Your task to perform on an android device: change notification settings in the gmail app Image 0: 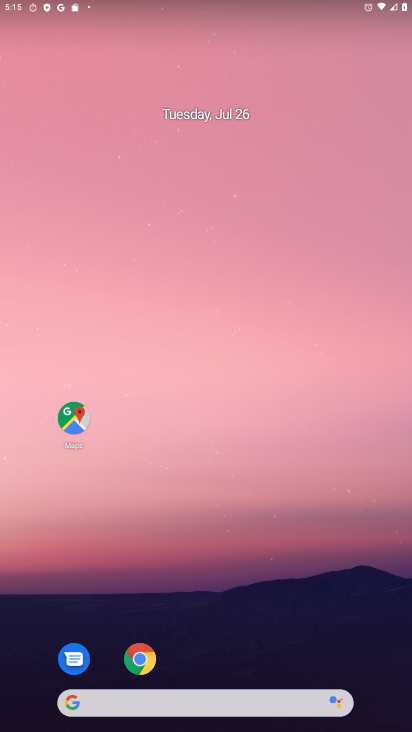
Step 0: press home button
Your task to perform on an android device: change notification settings in the gmail app Image 1: 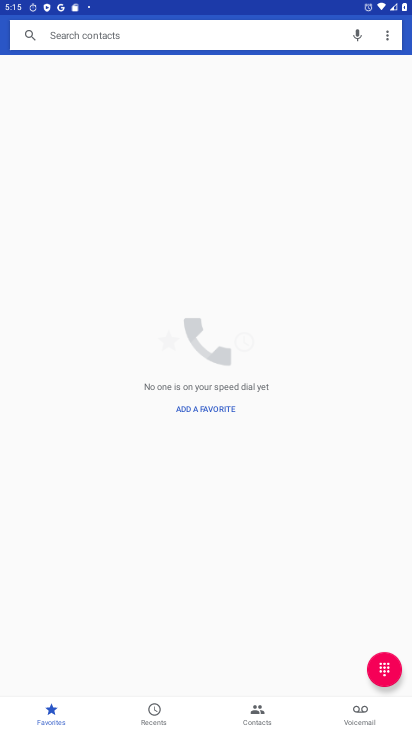
Step 1: drag from (214, 665) to (255, 84)
Your task to perform on an android device: change notification settings in the gmail app Image 2: 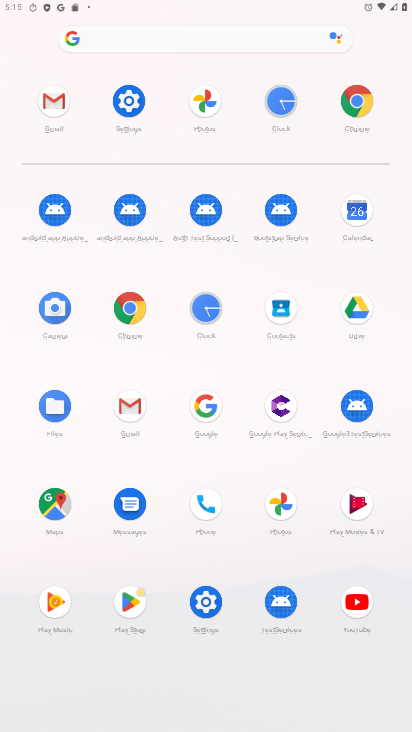
Step 2: click (128, 401)
Your task to perform on an android device: change notification settings in the gmail app Image 3: 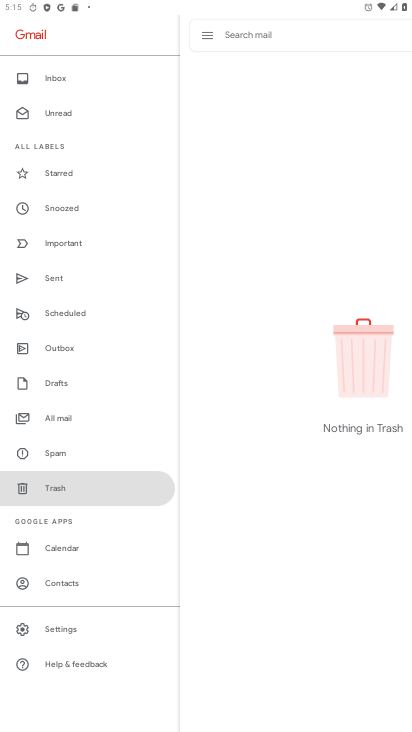
Step 3: click (89, 623)
Your task to perform on an android device: change notification settings in the gmail app Image 4: 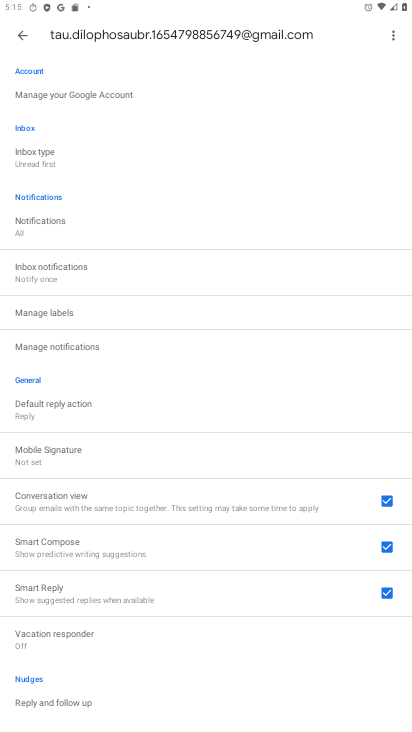
Step 4: click (17, 35)
Your task to perform on an android device: change notification settings in the gmail app Image 5: 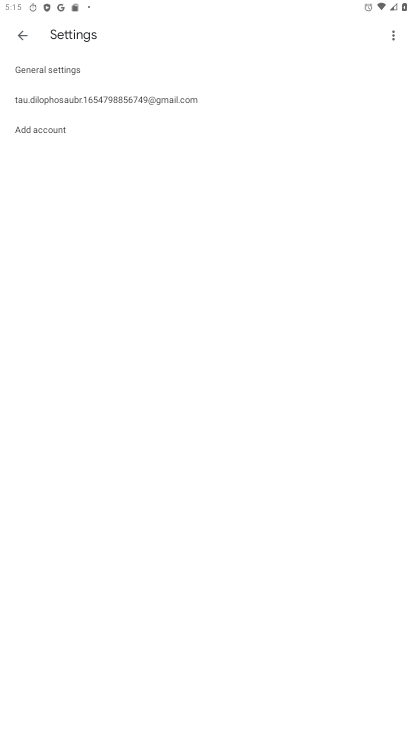
Step 5: click (87, 63)
Your task to perform on an android device: change notification settings in the gmail app Image 6: 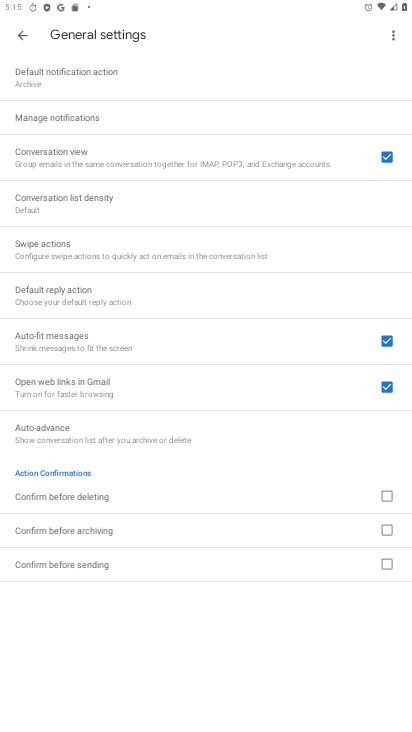
Step 6: click (83, 119)
Your task to perform on an android device: change notification settings in the gmail app Image 7: 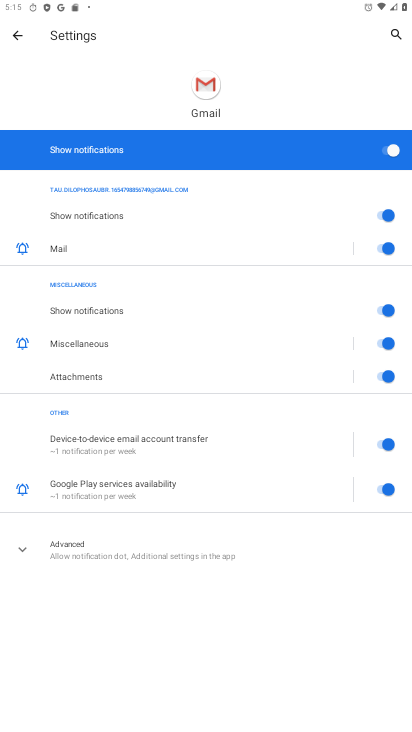
Step 7: click (392, 146)
Your task to perform on an android device: change notification settings in the gmail app Image 8: 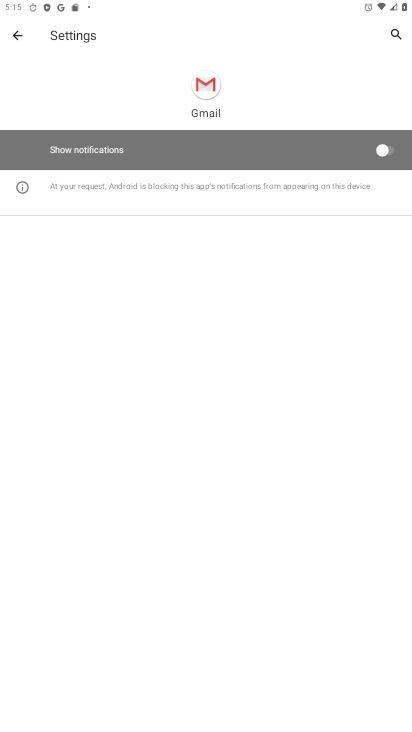
Step 8: task complete